Your task to perform on an android device: remove spam from my inbox in the gmail app Image 0: 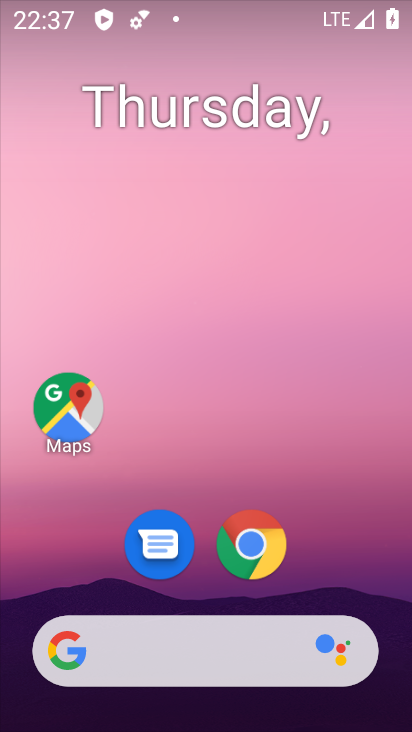
Step 0: drag from (308, 493) to (316, 106)
Your task to perform on an android device: remove spam from my inbox in the gmail app Image 1: 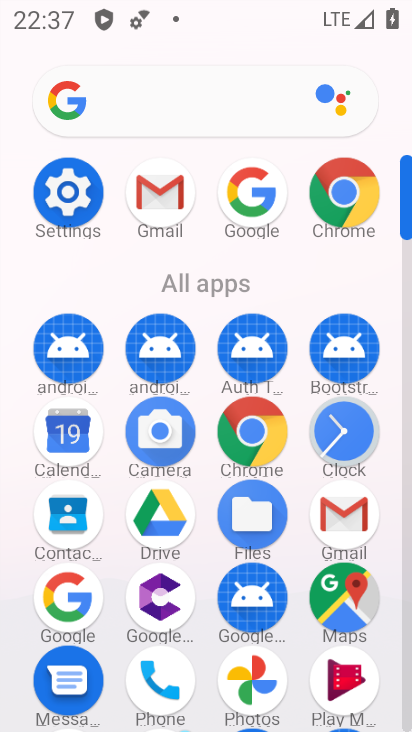
Step 1: click (364, 528)
Your task to perform on an android device: remove spam from my inbox in the gmail app Image 2: 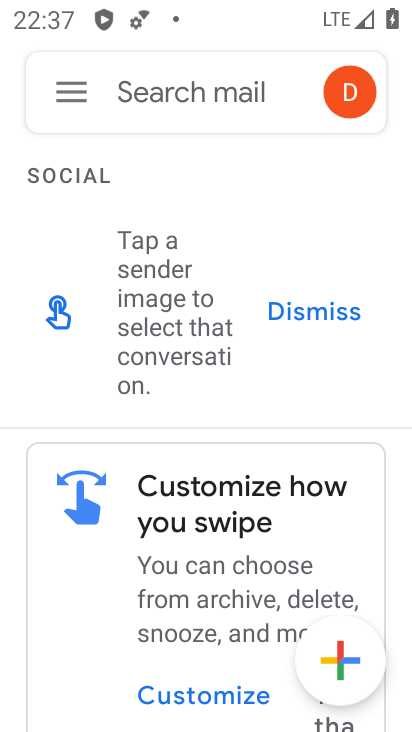
Step 2: click (81, 94)
Your task to perform on an android device: remove spam from my inbox in the gmail app Image 3: 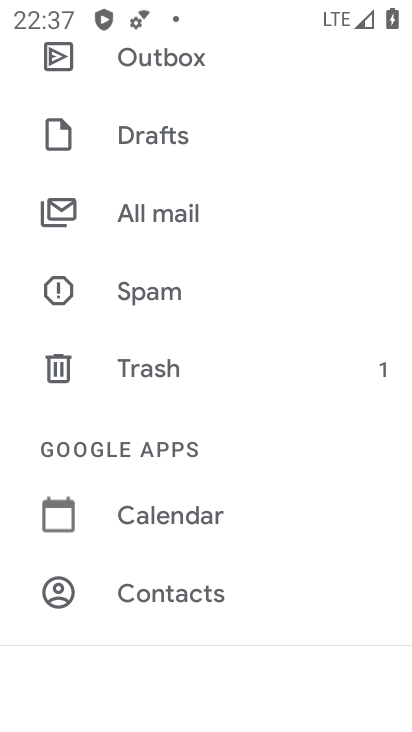
Step 3: click (221, 293)
Your task to perform on an android device: remove spam from my inbox in the gmail app Image 4: 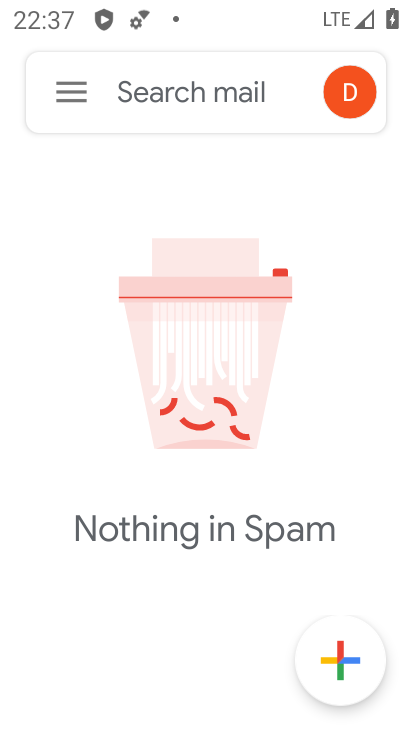
Step 4: task complete